Your task to perform on an android device: check out phone information Image 0: 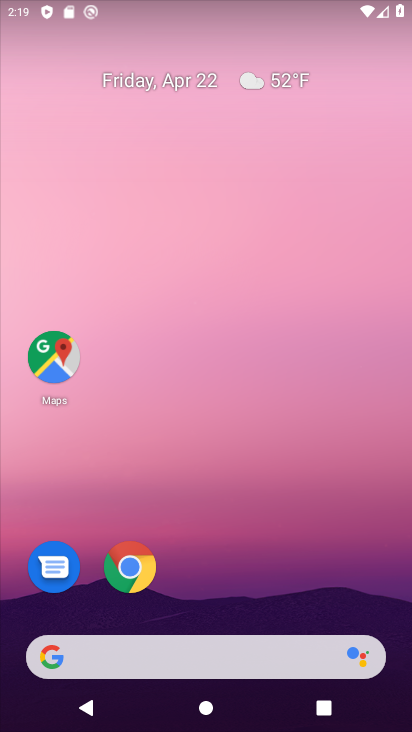
Step 0: drag from (304, 557) to (259, 16)
Your task to perform on an android device: check out phone information Image 1: 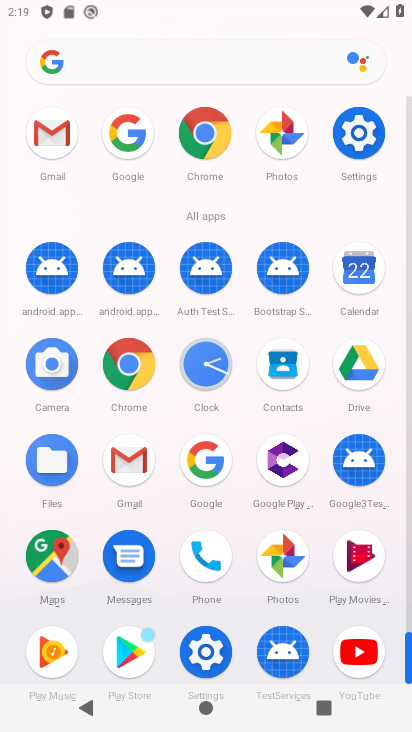
Step 1: click (360, 124)
Your task to perform on an android device: check out phone information Image 2: 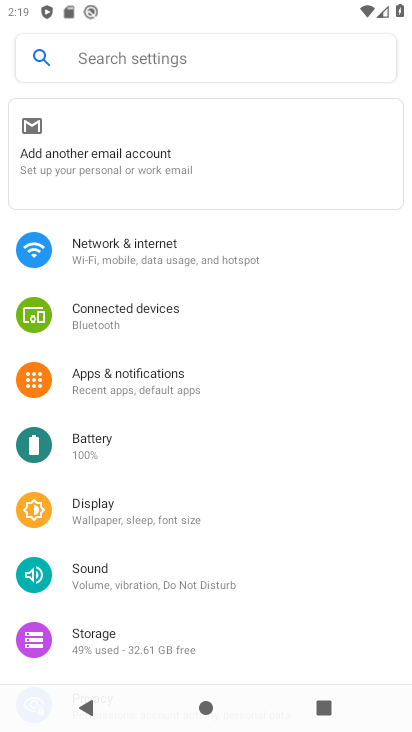
Step 2: drag from (254, 617) to (216, 115)
Your task to perform on an android device: check out phone information Image 3: 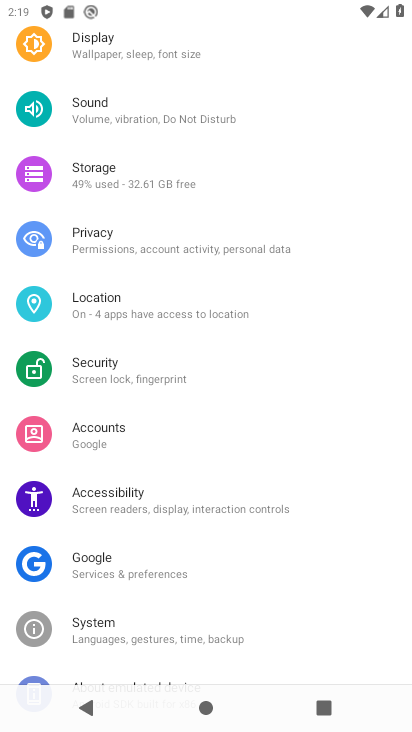
Step 3: drag from (178, 609) to (170, 57)
Your task to perform on an android device: check out phone information Image 4: 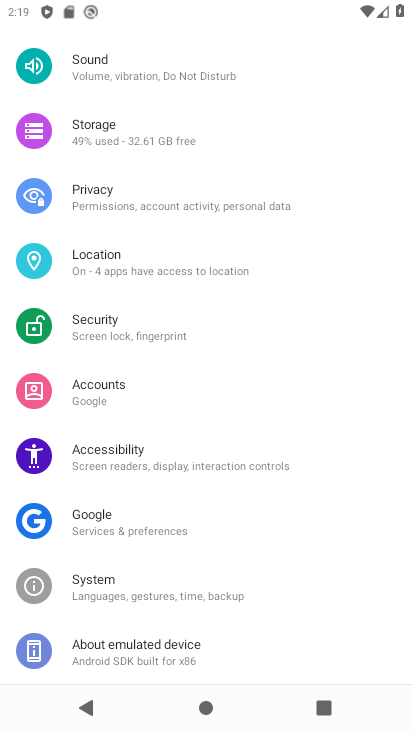
Step 4: click (135, 639)
Your task to perform on an android device: check out phone information Image 5: 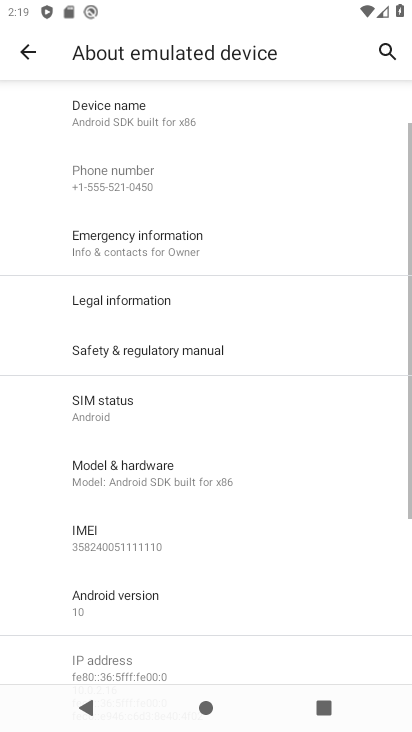
Step 5: task complete